Your task to perform on an android device: Show me popular games on the Play Store Image 0: 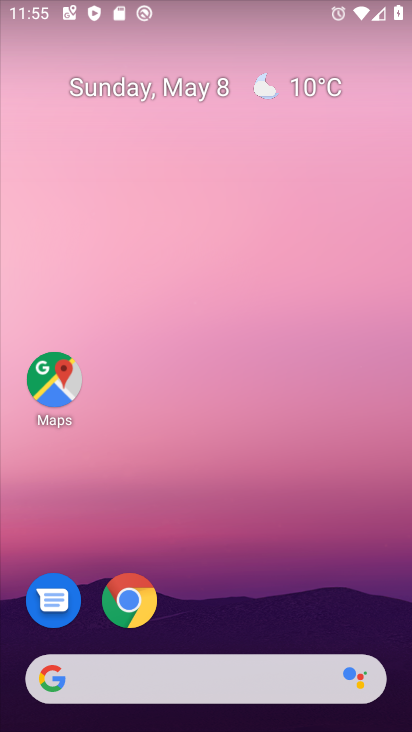
Step 0: drag from (174, 623) to (125, 159)
Your task to perform on an android device: Show me popular games on the Play Store Image 1: 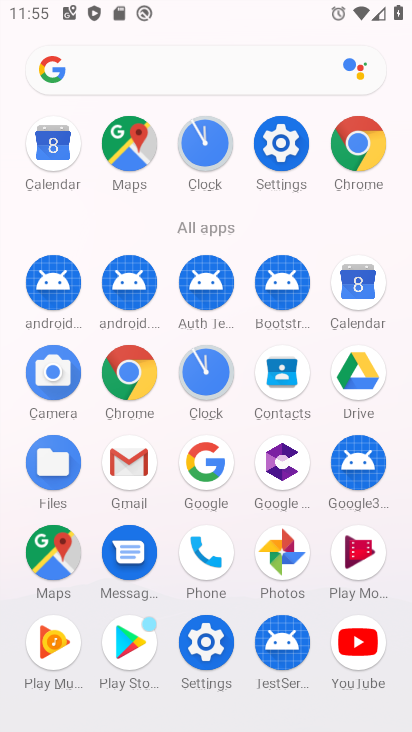
Step 1: click (132, 640)
Your task to perform on an android device: Show me popular games on the Play Store Image 2: 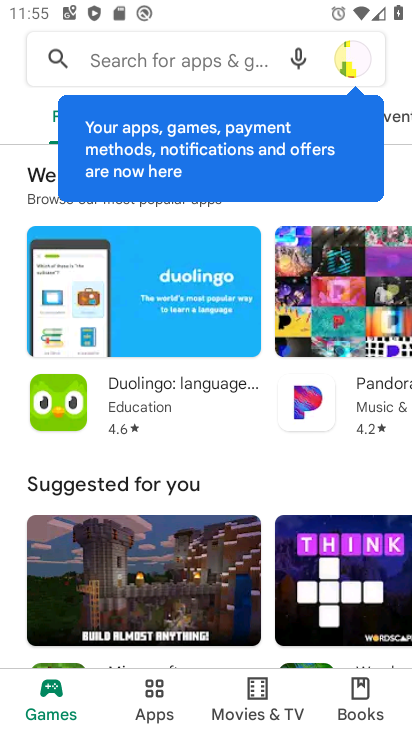
Step 2: click (208, 58)
Your task to perform on an android device: Show me popular games on the Play Store Image 3: 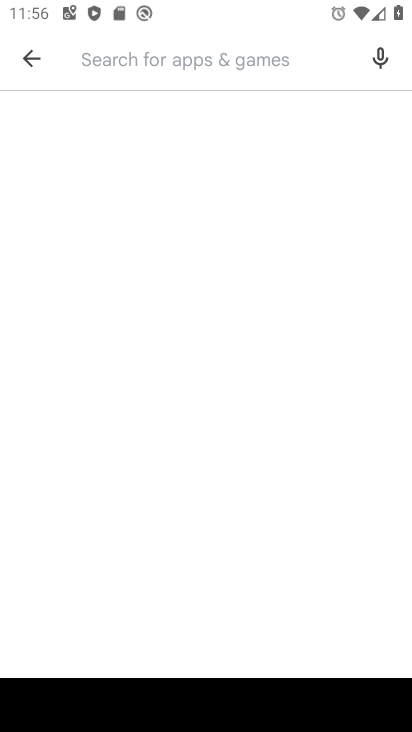
Step 3: type "popular games"
Your task to perform on an android device: Show me popular games on the Play Store Image 4: 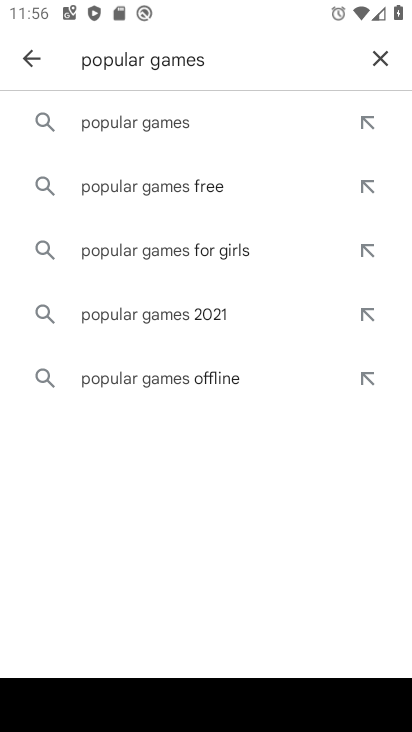
Step 4: click (167, 131)
Your task to perform on an android device: Show me popular games on the Play Store Image 5: 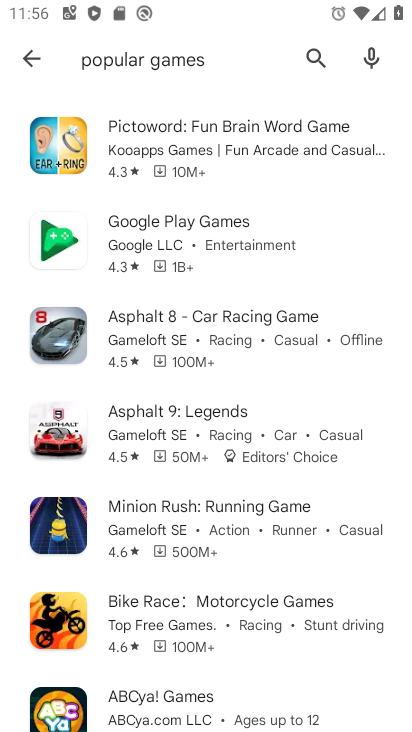
Step 5: task complete